Your task to perform on an android device: Open display settings Image 0: 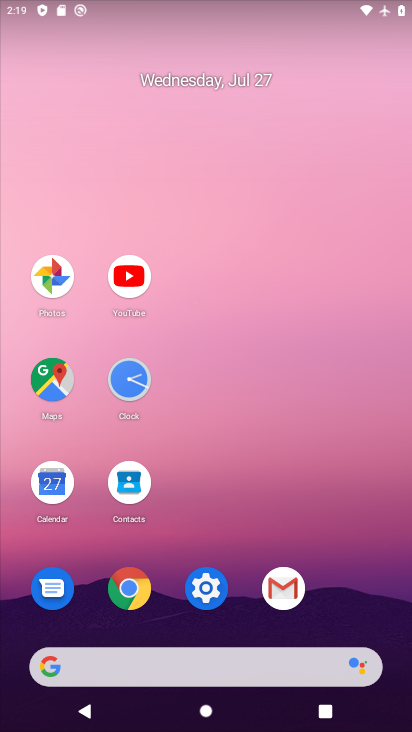
Step 0: click (203, 593)
Your task to perform on an android device: Open display settings Image 1: 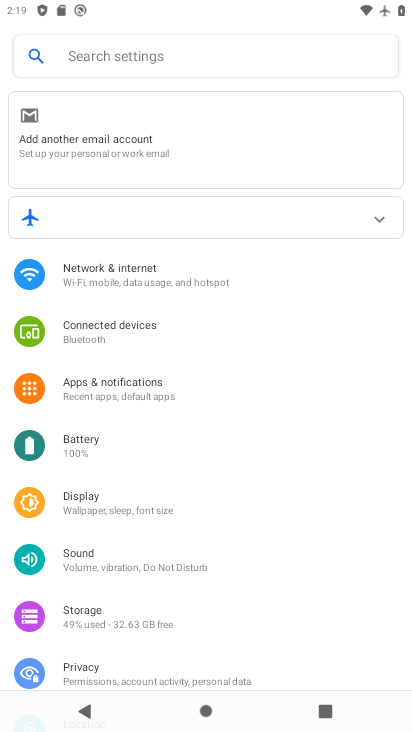
Step 1: click (77, 499)
Your task to perform on an android device: Open display settings Image 2: 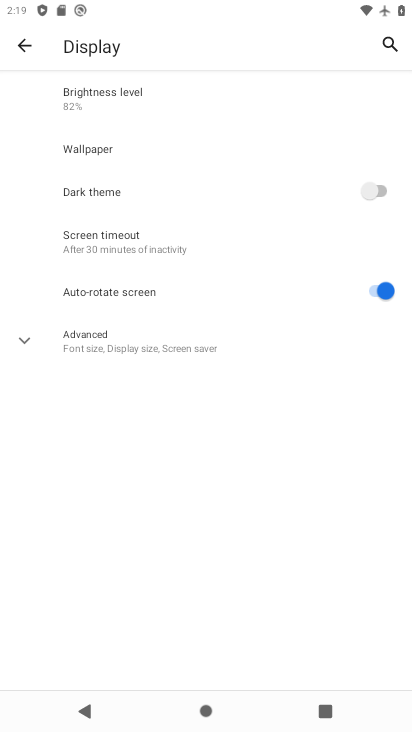
Step 2: task complete